Your task to perform on an android device: Open settings Image 0: 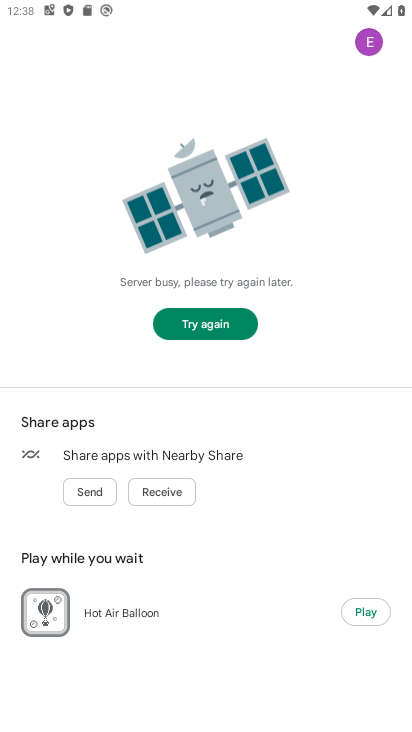
Step 0: press home button
Your task to perform on an android device: Open settings Image 1: 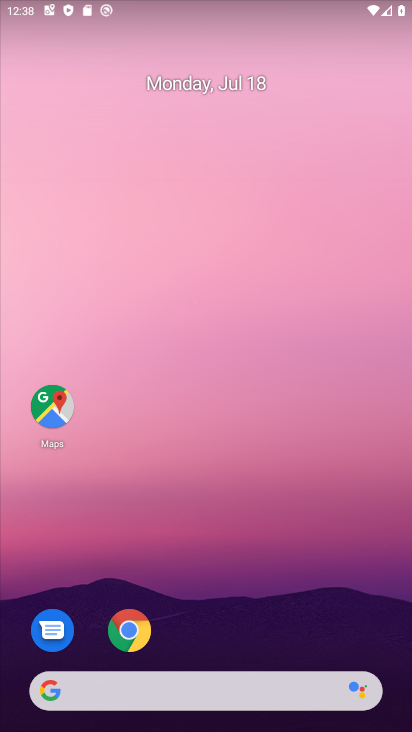
Step 1: drag from (312, 626) to (266, 91)
Your task to perform on an android device: Open settings Image 2: 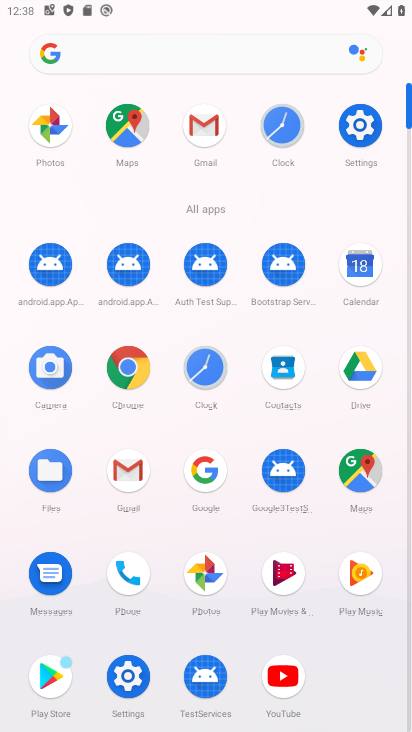
Step 2: click (361, 127)
Your task to perform on an android device: Open settings Image 3: 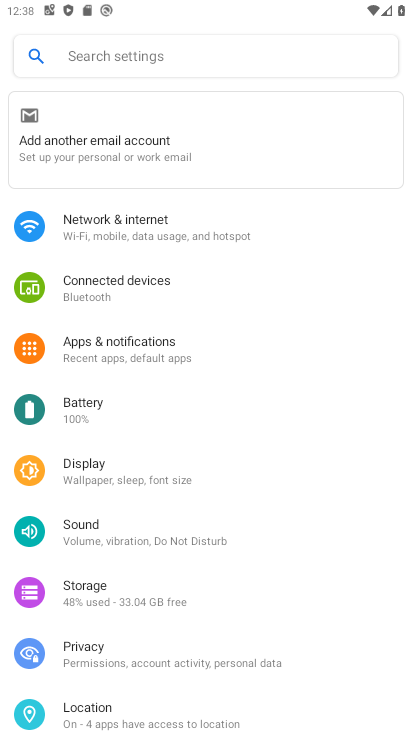
Step 3: task complete